Your task to perform on an android device: delete a single message in the gmail app Image 0: 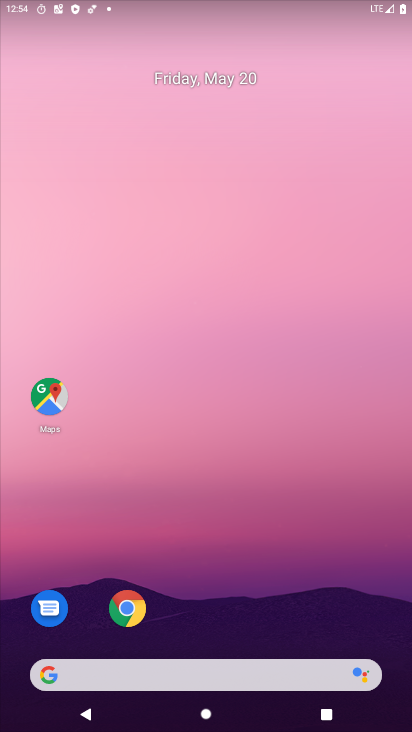
Step 0: drag from (356, 571) to (353, 96)
Your task to perform on an android device: delete a single message in the gmail app Image 1: 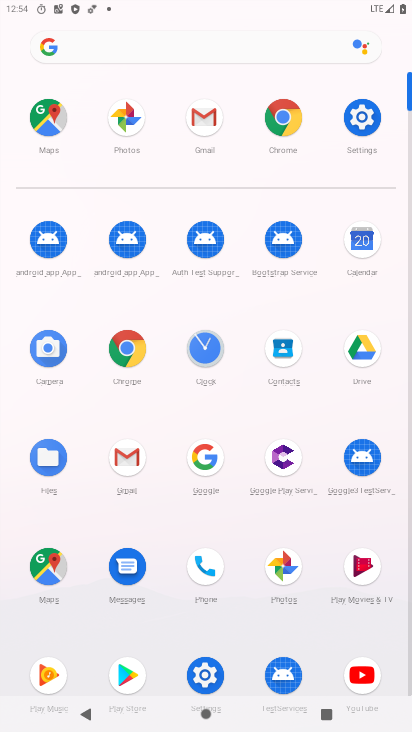
Step 1: click (135, 455)
Your task to perform on an android device: delete a single message in the gmail app Image 2: 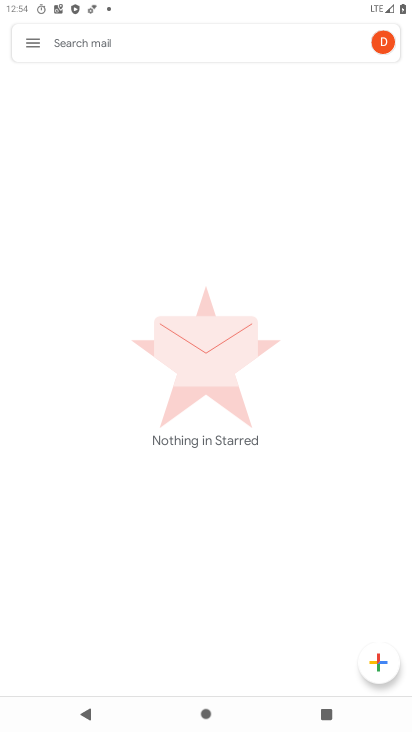
Step 2: click (29, 40)
Your task to perform on an android device: delete a single message in the gmail app Image 3: 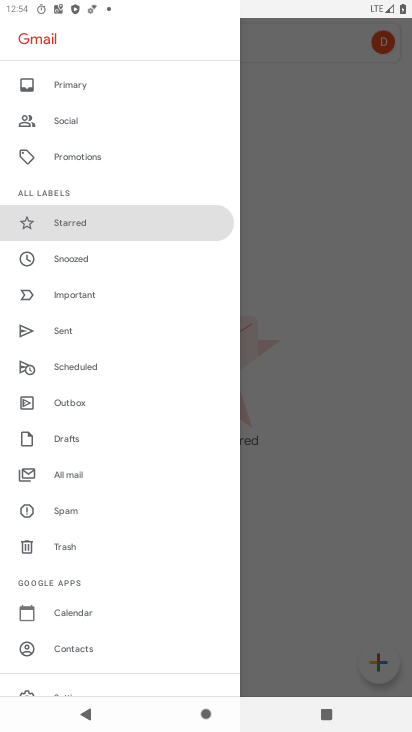
Step 3: click (77, 483)
Your task to perform on an android device: delete a single message in the gmail app Image 4: 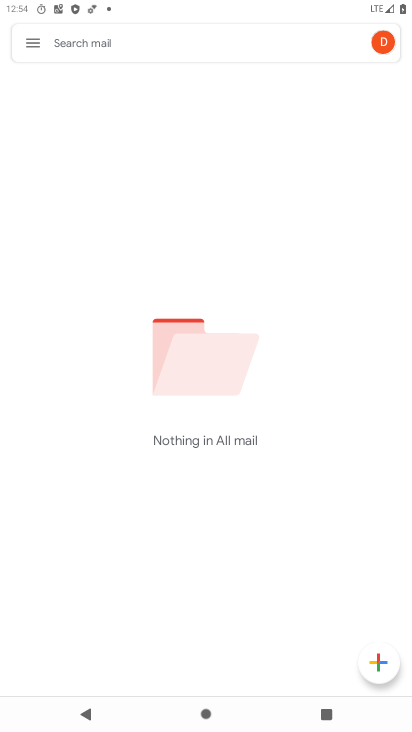
Step 4: task complete